Your task to perform on an android device: Go to accessibility settings Image 0: 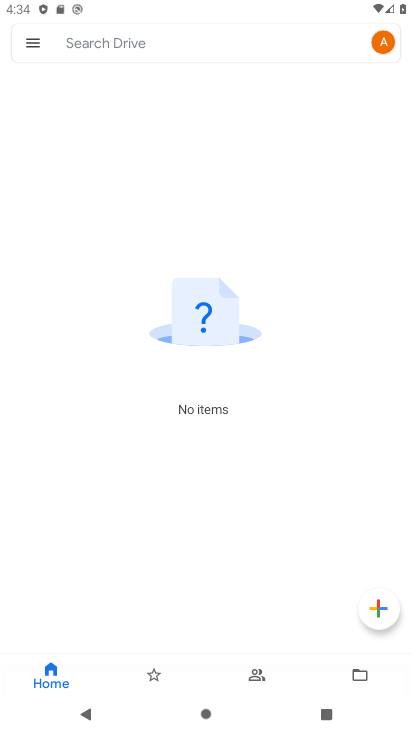
Step 0: press home button
Your task to perform on an android device: Go to accessibility settings Image 1: 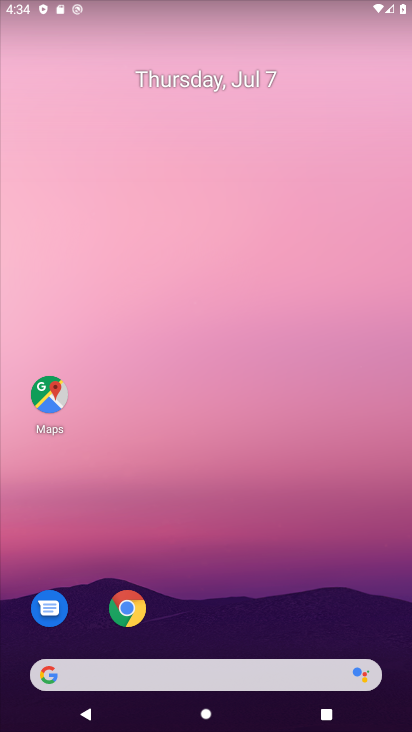
Step 1: drag from (200, 629) to (219, 109)
Your task to perform on an android device: Go to accessibility settings Image 2: 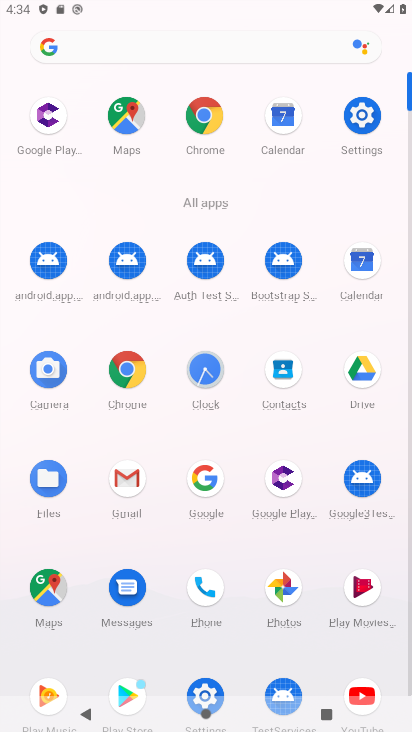
Step 2: click (356, 110)
Your task to perform on an android device: Go to accessibility settings Image 3: 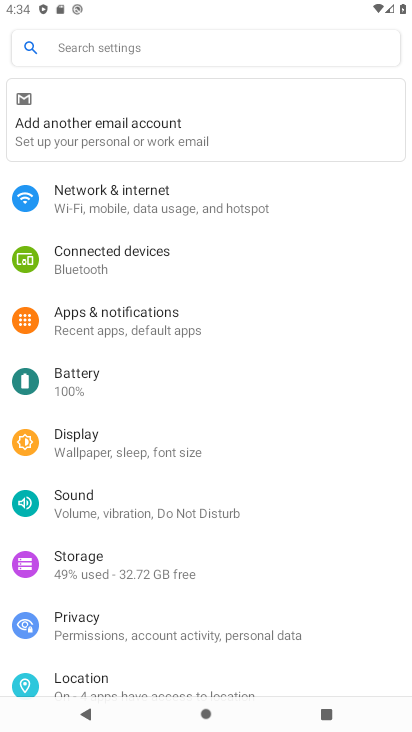
Step 3: drag from (146, 643) to (139, 124)
Your task to perform on an android device: Go to accessibility settings Image 4: 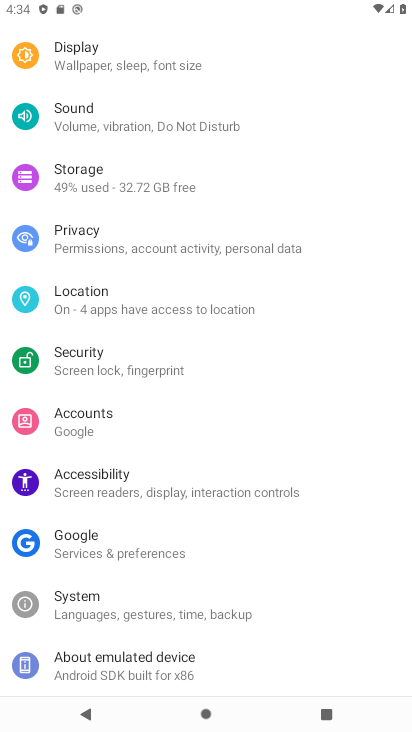
Step 4: click (138, 475)
Your task to perform on an android device: Go to accessibility settings Image 5: 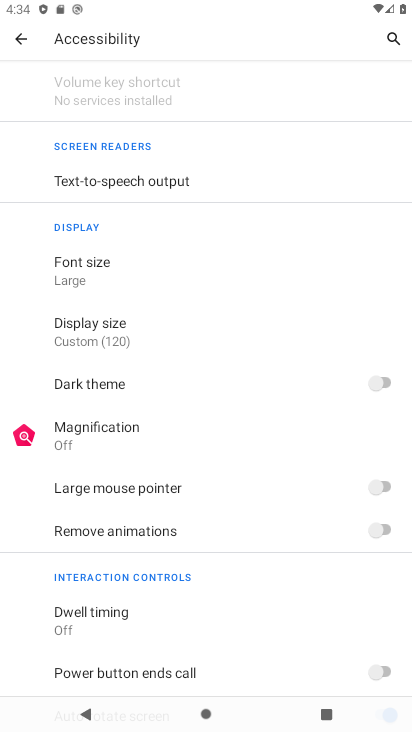
Step 5: task complete